Your task to perform on an android device: Search for sushi restaurants on Maps Image 0: 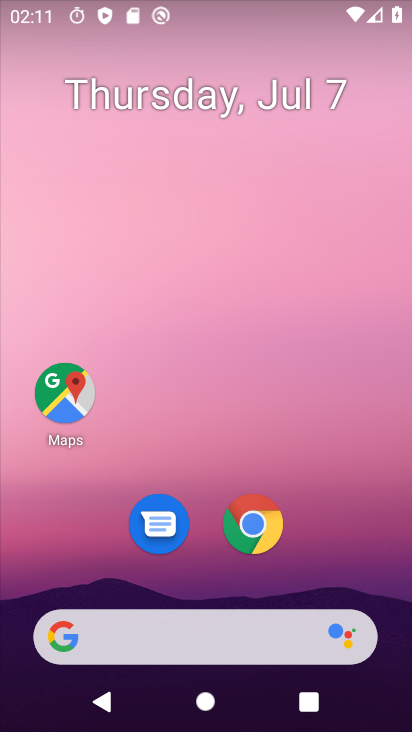
Step 0: click (66, 398)
Your task to perform on an android device: Search for sushi restaurants on Maps Image 1: 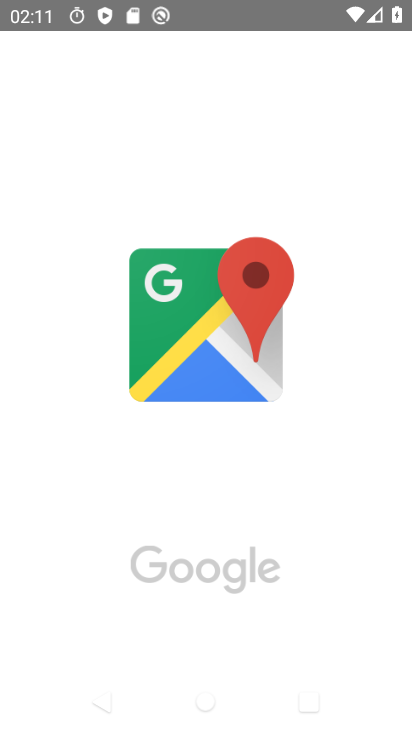
Step 1: click (66, 398)
Your task to perform on an android device: Search for sushi restaurants on Maps Image 2: 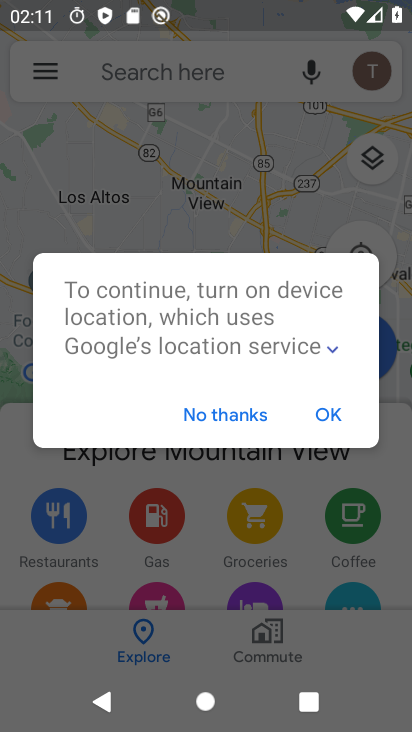
Step 2: click (327, 404)
Your task to perform on an android device: Search for sushi restaurants on Maps Image 3: 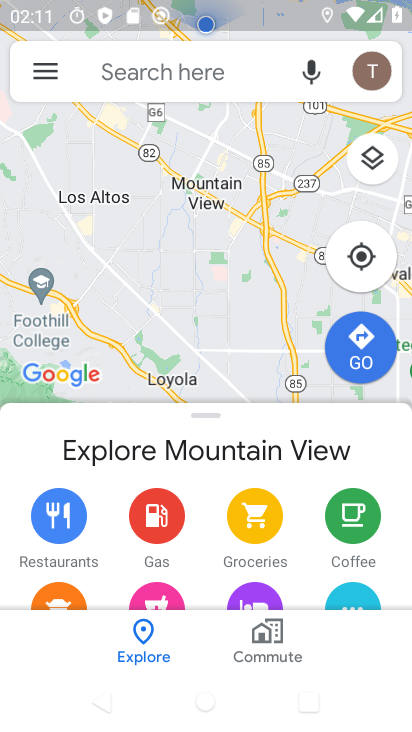
Step 3: click (167, 66)
Your task to perform on an android device: Search for sushi restaurants on Maps Image 4: 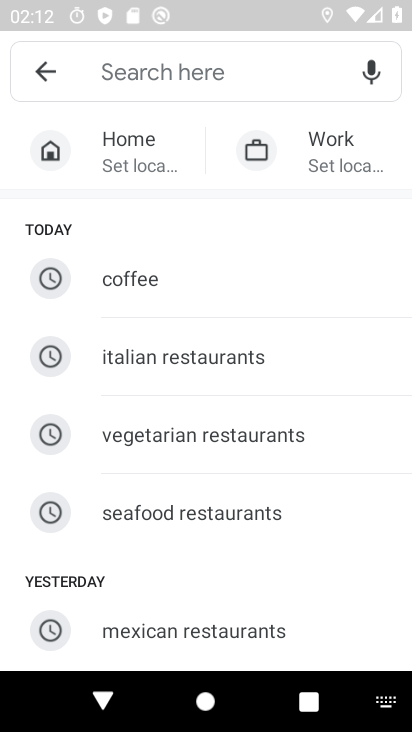
Step 4: drag from (219, 518) to (209, 319)
Your task to perform on an android device: Search for sushi restaurants on Maps Image 5: 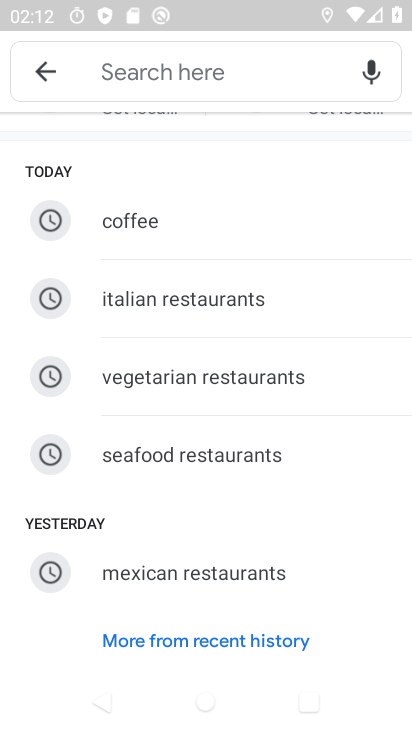
Step 5: click (236, 76)
Your task to perform on an android device: Search for sushi restaurants on Maps Image 6: 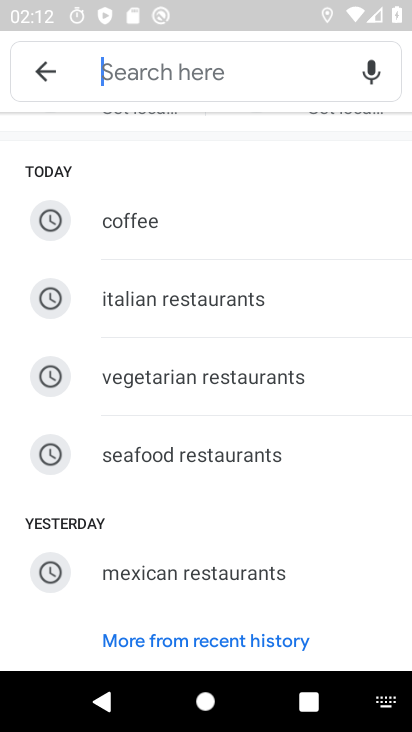
Step 6: type "sushi restaurants"
Your task to perform on an android device: Search for sushi restaurants on Maps Image 7: 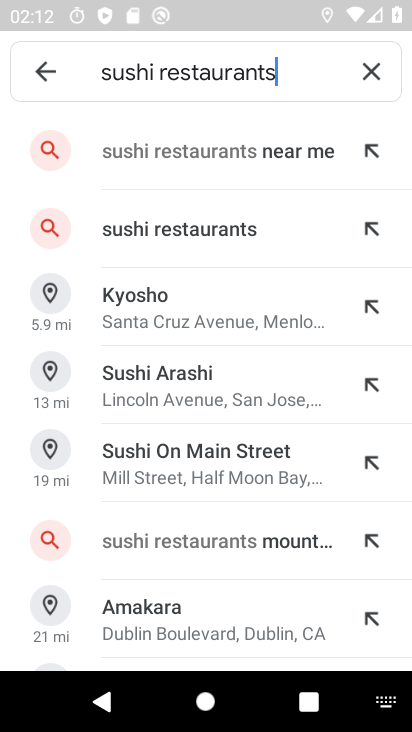
Step 7: click (236, 232)
Your task to perform on an android device: Search for sushi restaurants on Maps Image 8: 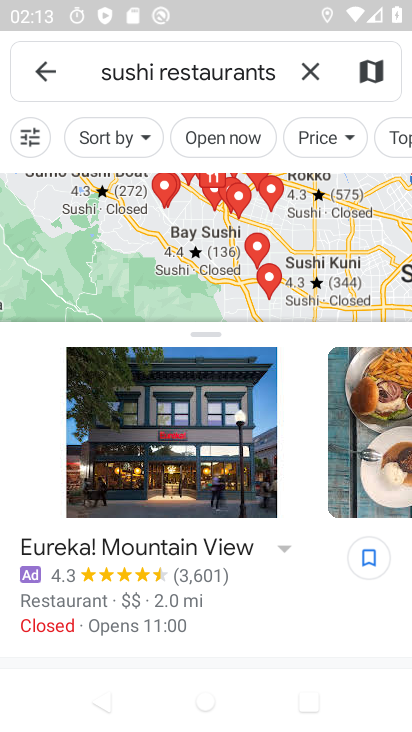
Step 8: task complete